Your task to perform on an android device: Go to ESPN.com Image 0: 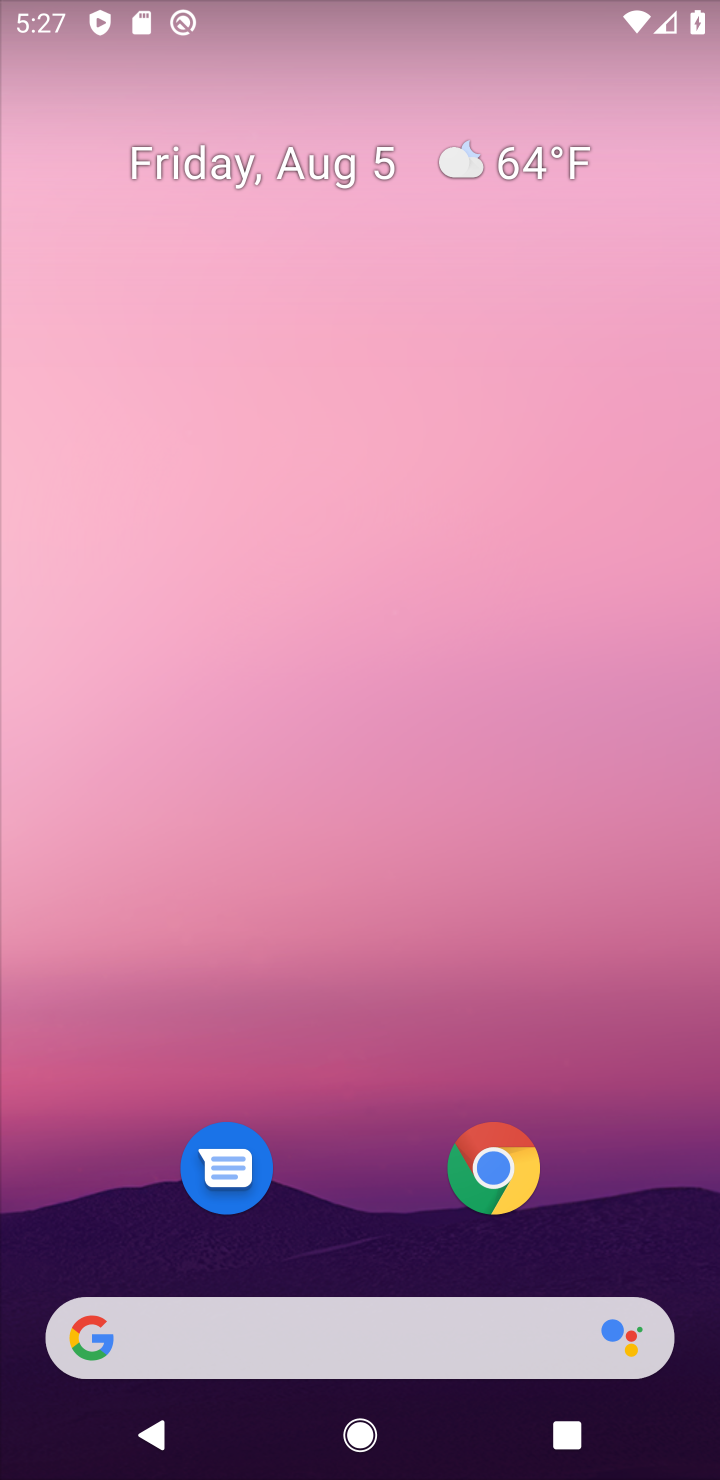
Step 0: click (99, 1330)
Your task to perform on an android device: Go to ESPN.com Image 1: 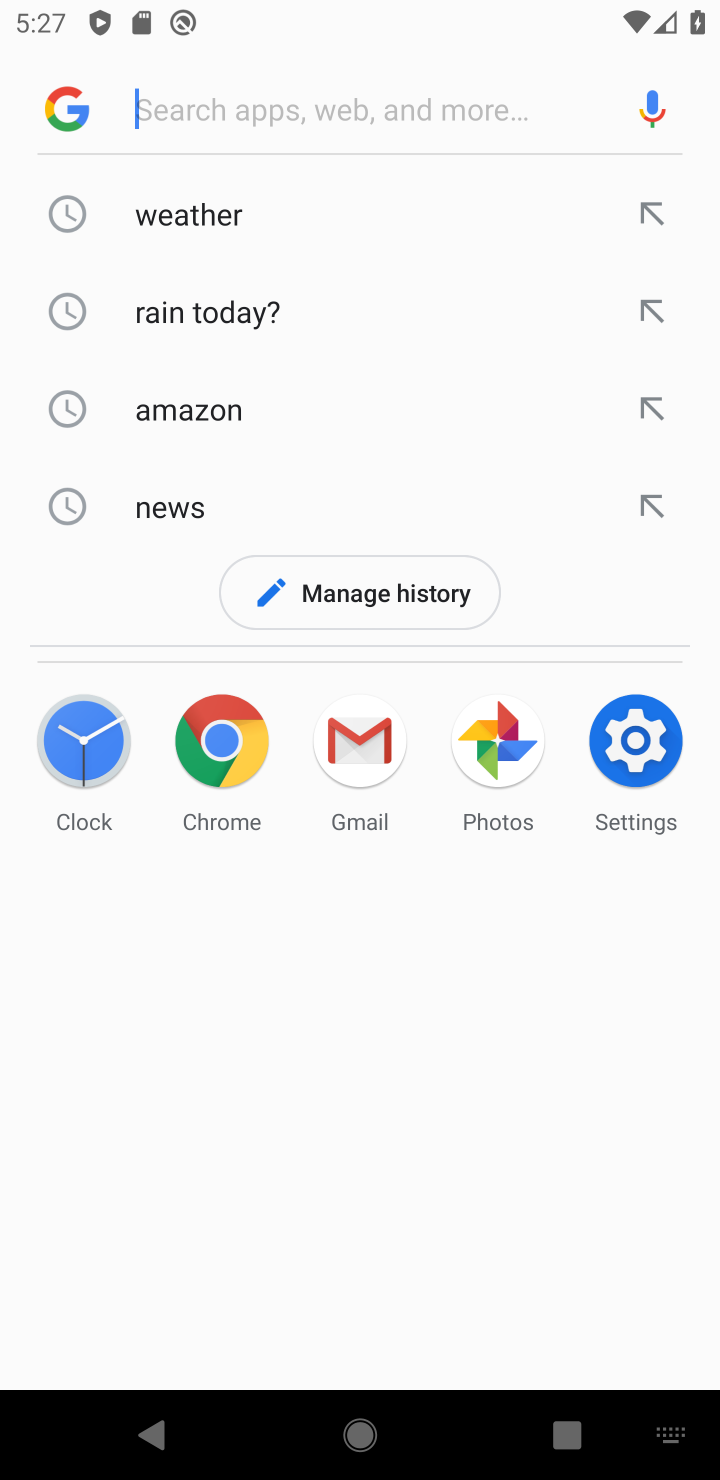
Step 1: type " ESPN.com"
Your task to perform on an android device: Go to ESPN.com Image 2: 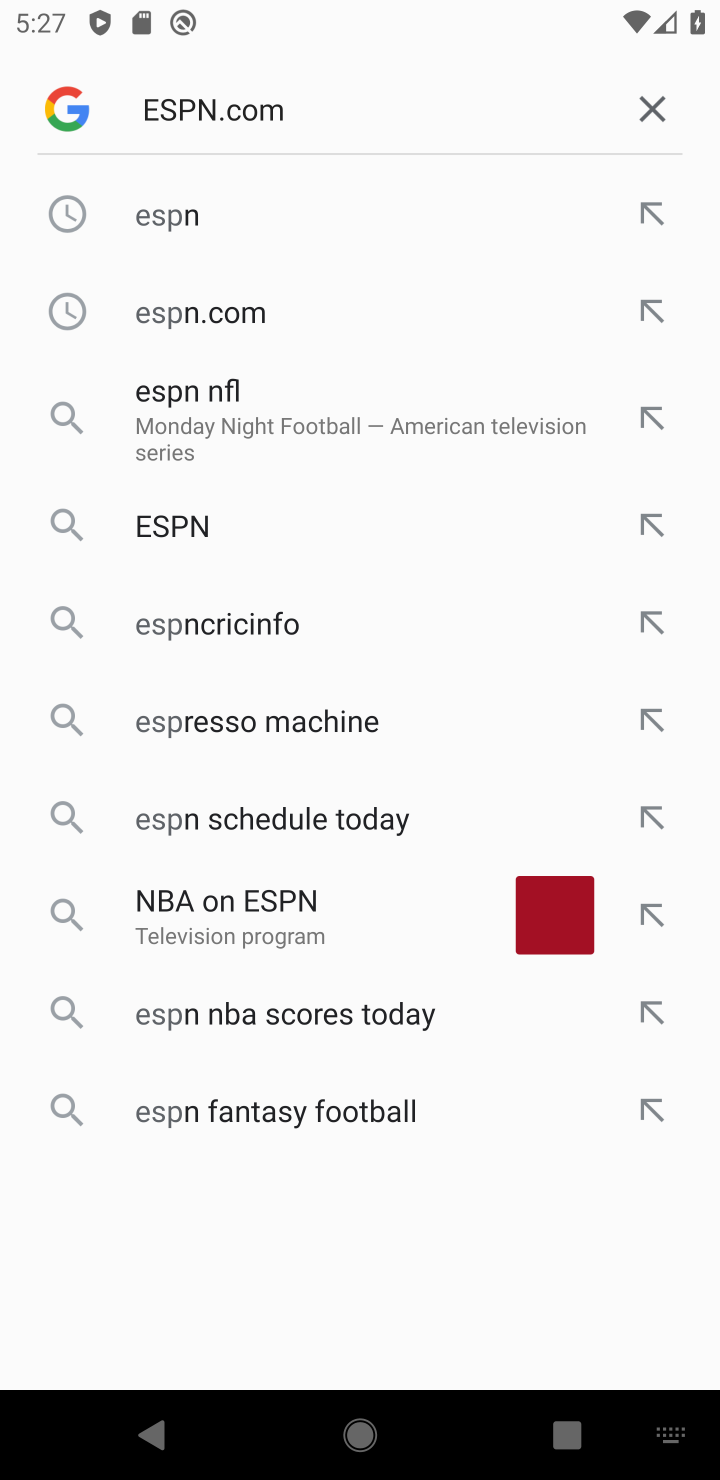
Step 2: press enter
Your task to perform on an android device: Go to ESPN.com Image 3: 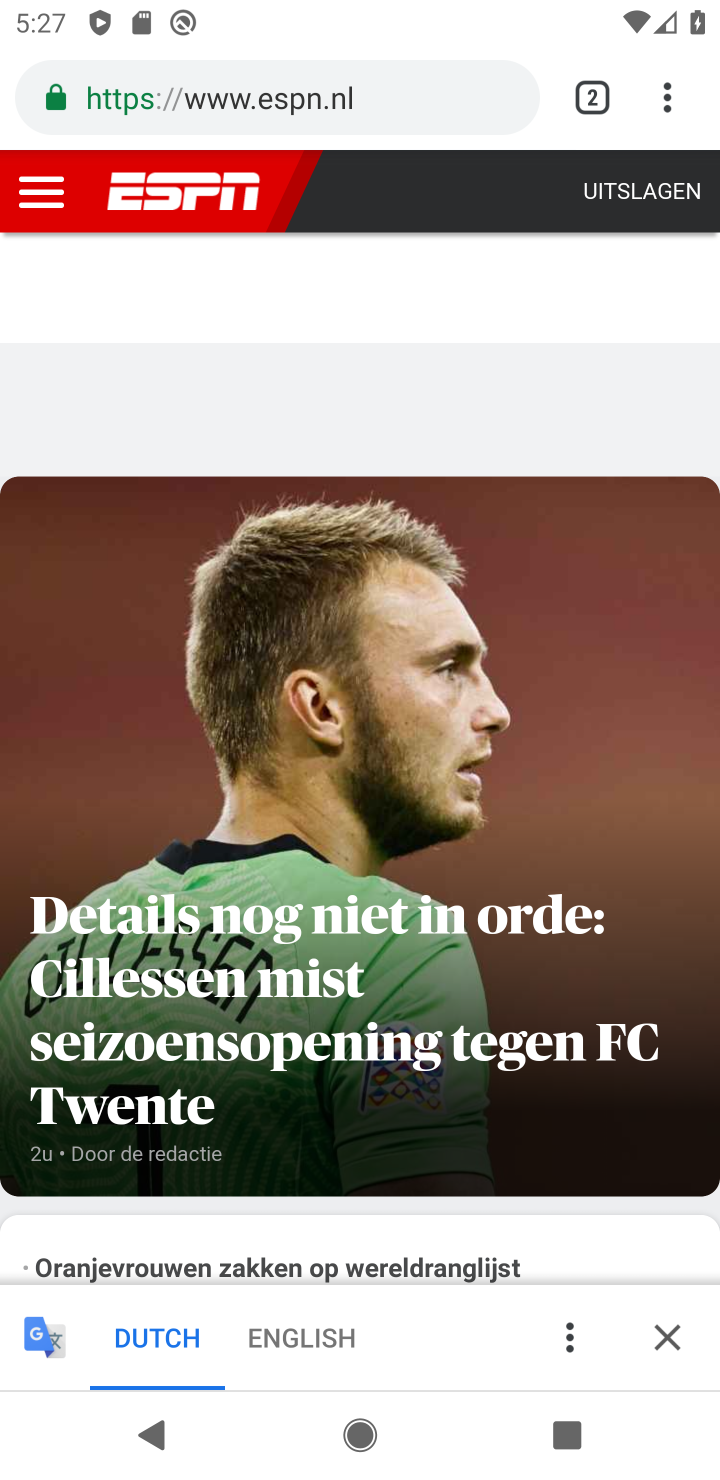
Step 3: task complete